Your task to perform on an android device: Open my contact list Image 0: 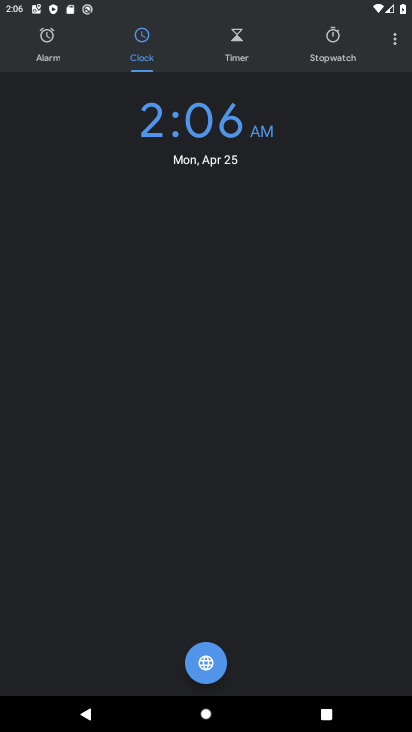
Step 0: press home button
Your task to perform on an android device: Open my contact list Image 1: 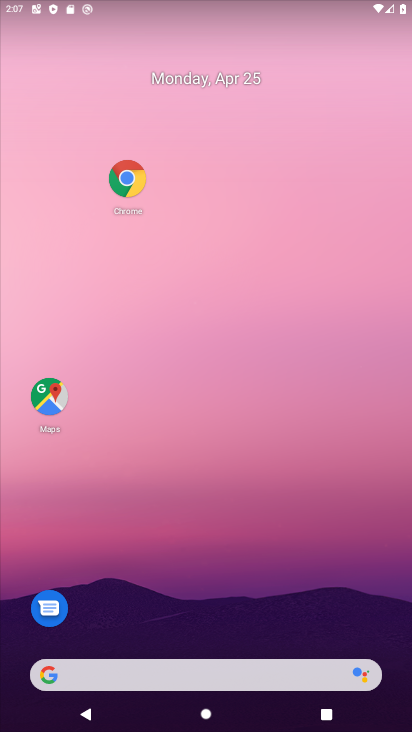
Step 1: drag from (181, 614) to (215, 143)
Your task to perform on an android device: Open my contact list Image 2: 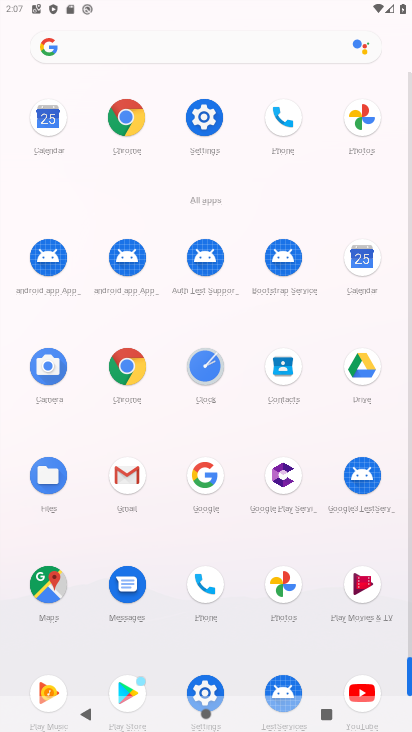
Step 2: click (286, 355)
Your task to perform on an android device: Open my contact list Image 3: 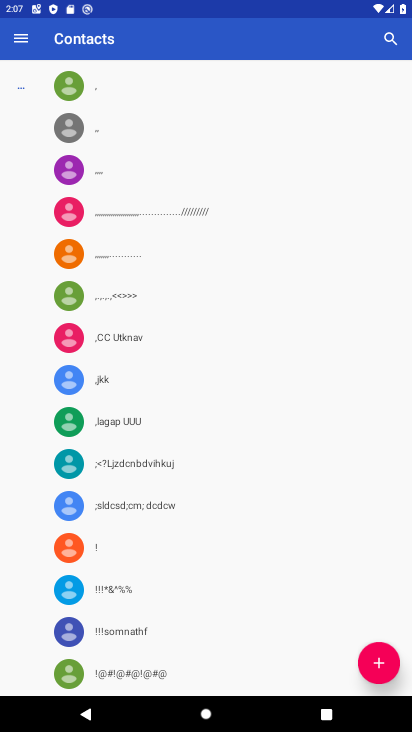
Step 3: press home button
Your task to perform on an android device: Open my contact list Image 4: 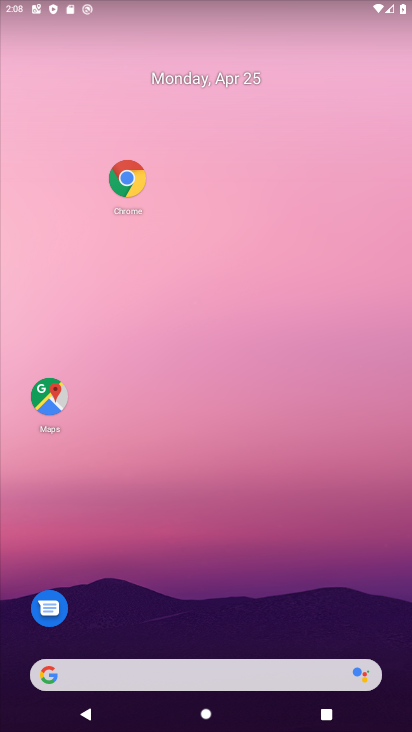
Step 4: drag from (161, 644) to (251, 123)
Your task to perform on an android device: Open my contact list Image 5: 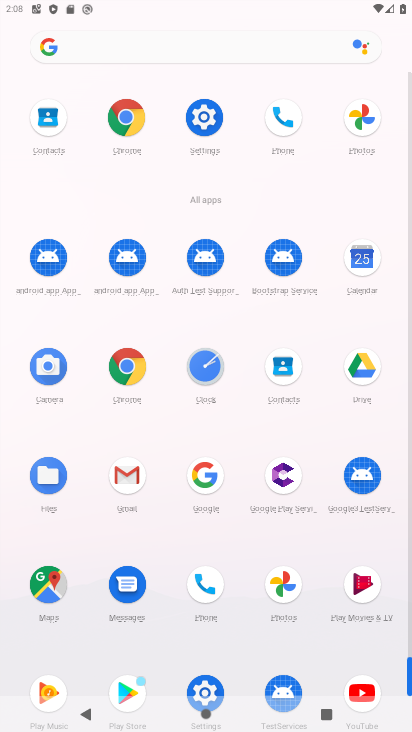
Step 5: click (280, 372)
Your task to perform on an android device: Open my contact list Image 6: 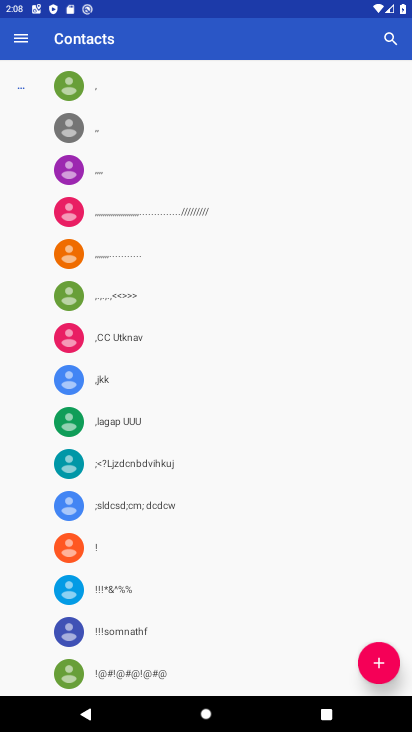
Step 6: task complete